Your task to perform on an android device: What is the recent news? Image 0: 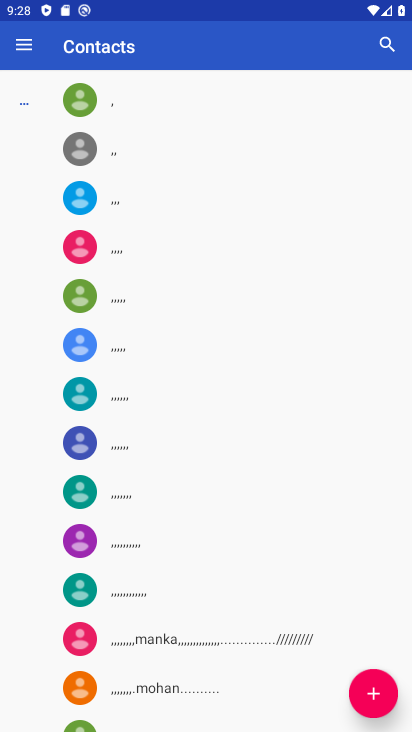
Step 0: press home button
Your task to perform on an android device: What is the recent news? Image 1: 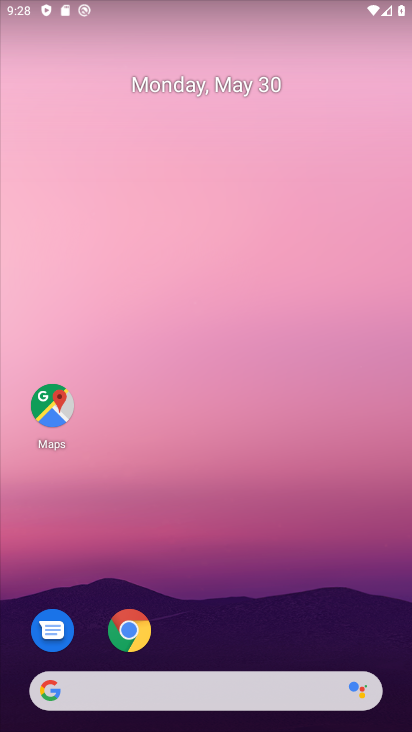
Step 1: drag from (288, 617) to (269, 166)
Your task to perform on an android device: What is the recent news? Image 2: 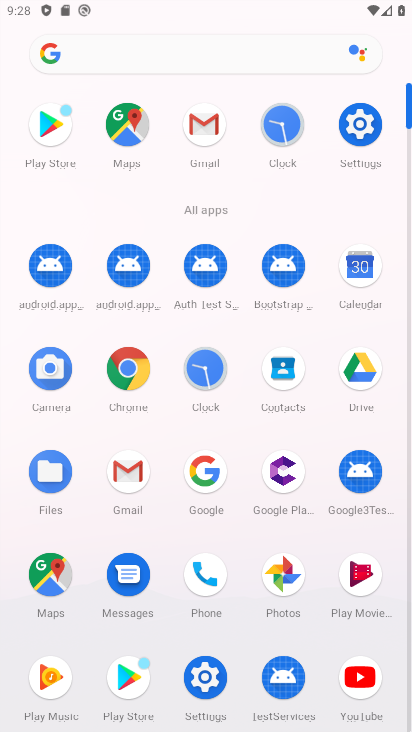
Step 2: click (260, 49)
Your task to perform on an android device: What is the recent news? Image 3: 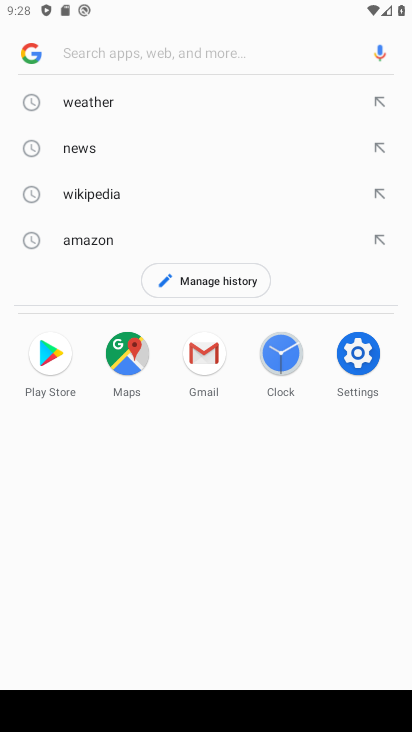
Step 3: click (168, 153)
Your task to perform on an android device: What is the recent news? Image 4: 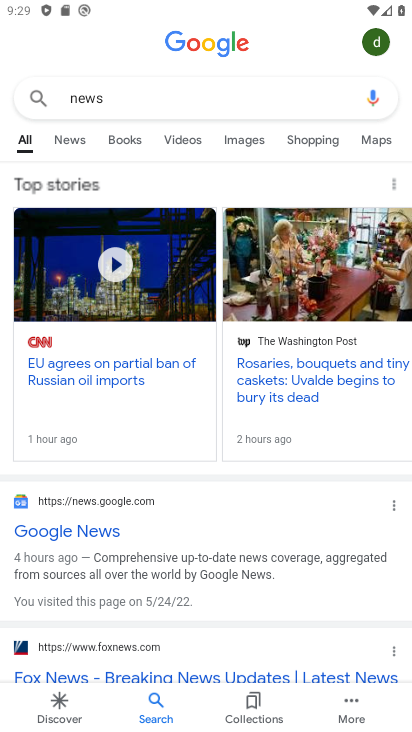
Step 4: task complete